Your task to perform on an android device: check google app version Image 0: 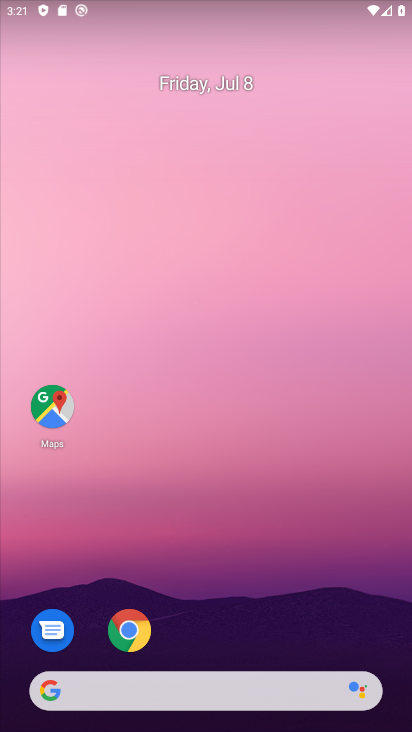
Step 0: drag from (211, 663) to (216, 146)
Your task to perform on an android device: check google app version Image 1: 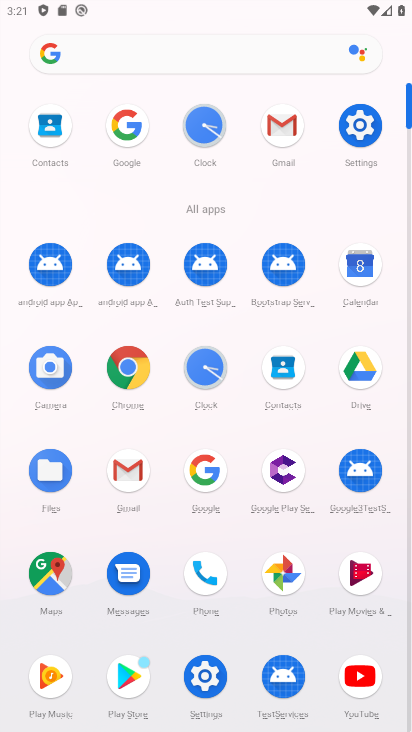
Step 1: click (124, 127)
Your task to perform on an android device: check google app version Image 2: 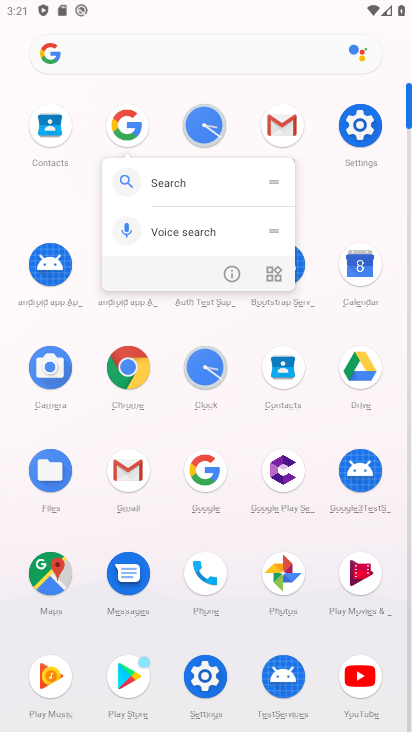
Step 2: click (234, 274)
Your task to perform on an android device: check google app version Image 3: 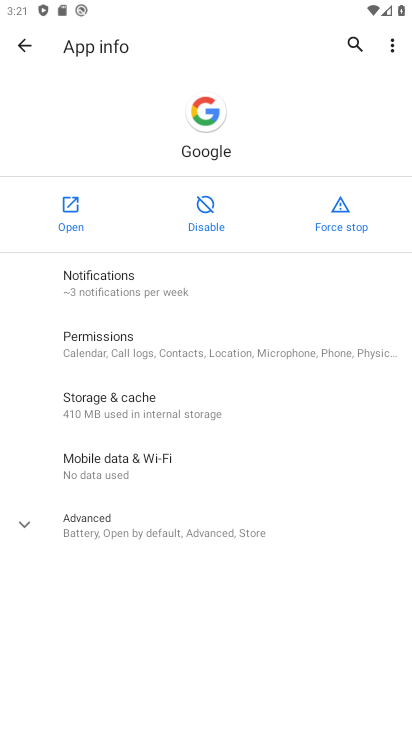
Step 3: click (87, 517)
Your task to perform on an android device: check google app version Image 4: 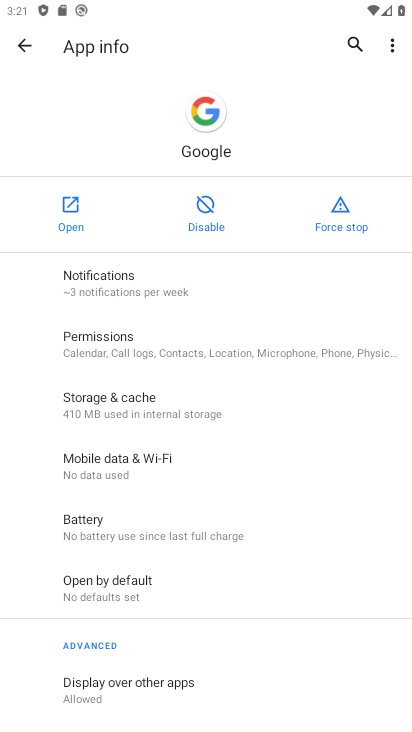
Step 4: task complete